Your task to perform on an android device: turn on wifi Image 0: 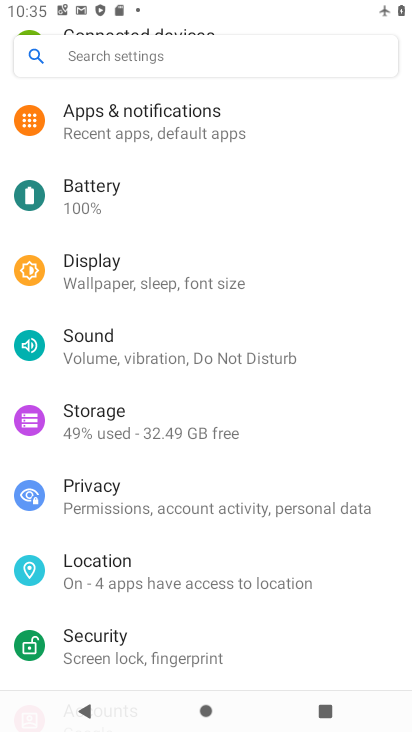
Step 0: press home button
Your task to perform on an android device: turn on wifi Image 1: 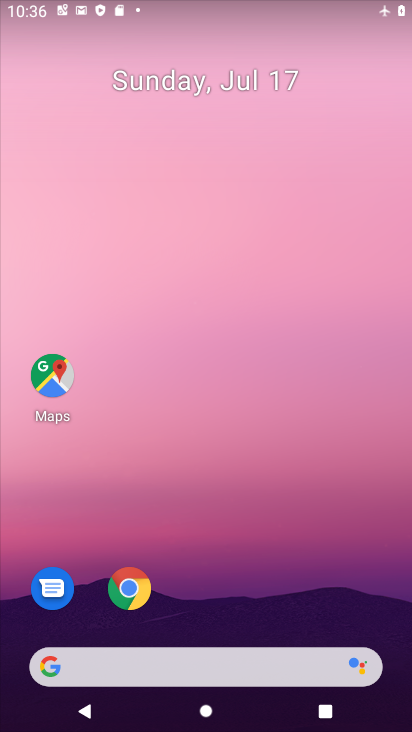
Step 1: drag from (382, 4) to (336, 577)
Your task to perform on an android device: turn on wifi Image 2: 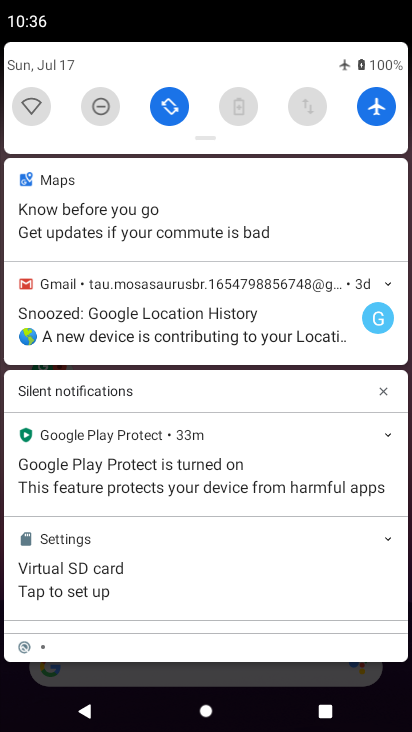
Step 2: click (40, 110)
Your task to perform on an android device: turn on wifi Image 3: 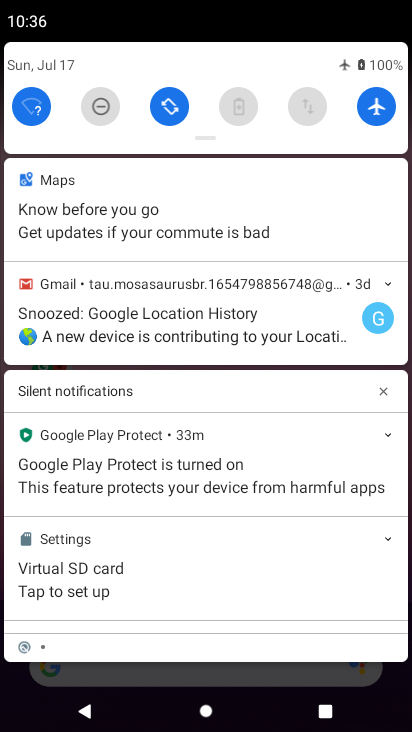
Step 3: task complete